Your task to perform on an android device: open chrome privacy settings Image 0: 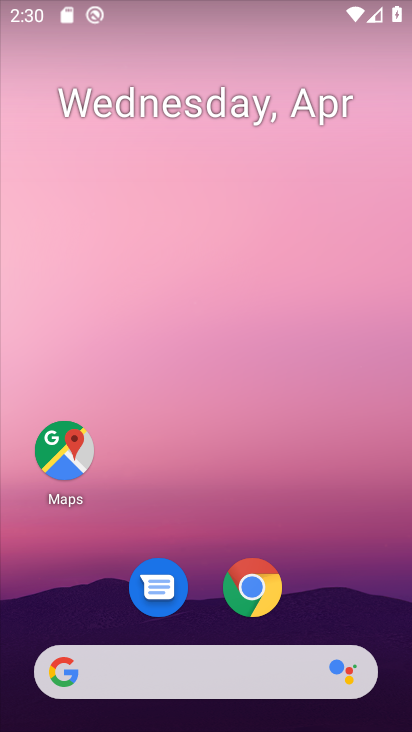
Step 0: click (357, 627)
Your task to perform on an android device: open chrome privacy settings Image 1: 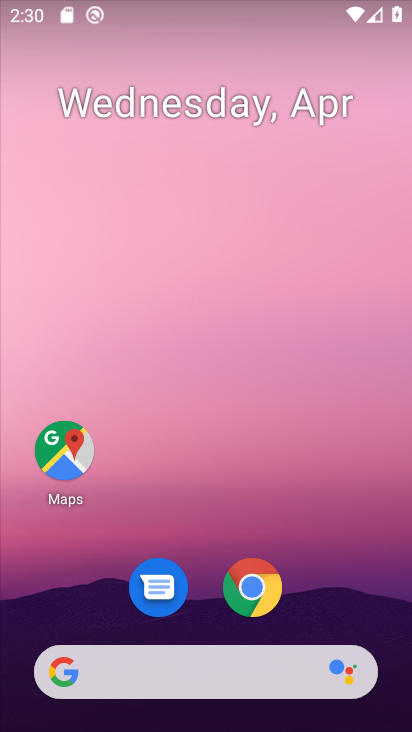
Step 1: click (265, 582)
Your task to perform on an android device: open chrome privacy settings Image 2: 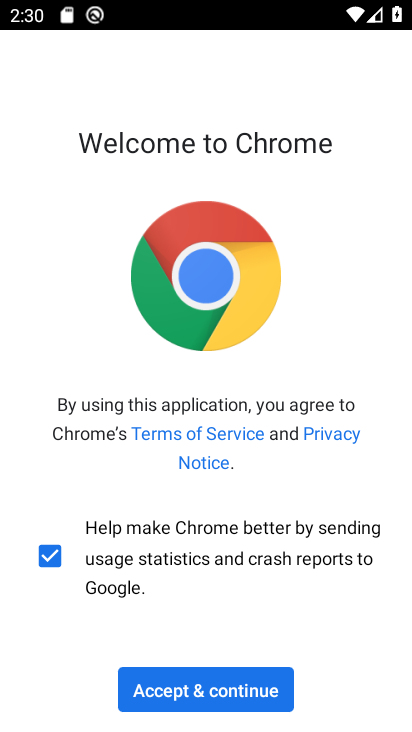
Step 2: click (219, 698)
Your task to perform on an android device: open chrome privacy settings Image 3: 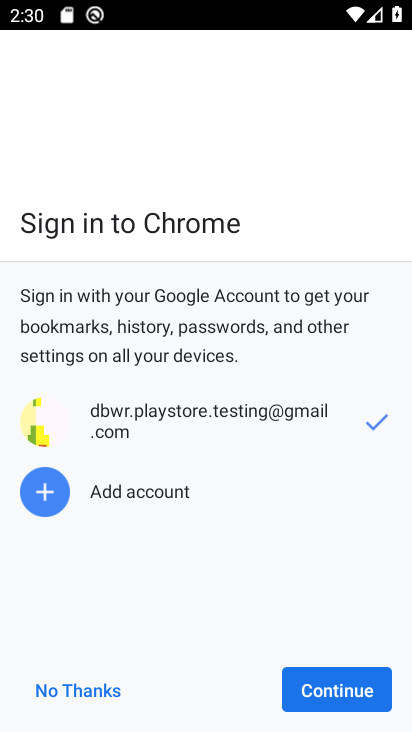
Step 3: click (332, 686)
Your task to perform on an android device: open chrome privacy settings Image 4: 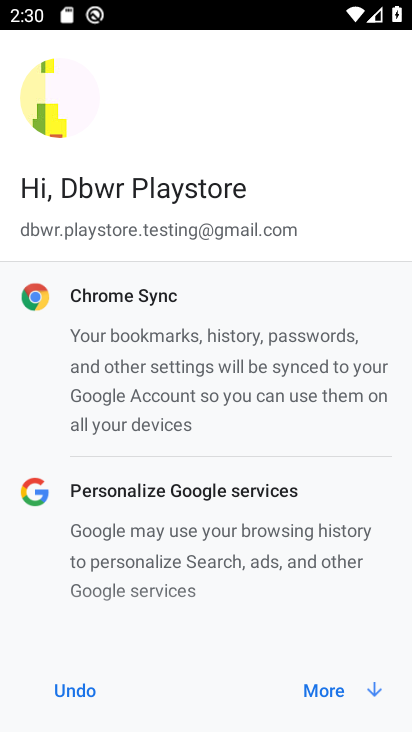
Step 4: click (332, 686)
Your task to perform on an android device: open chrome privacy settings Image 5: 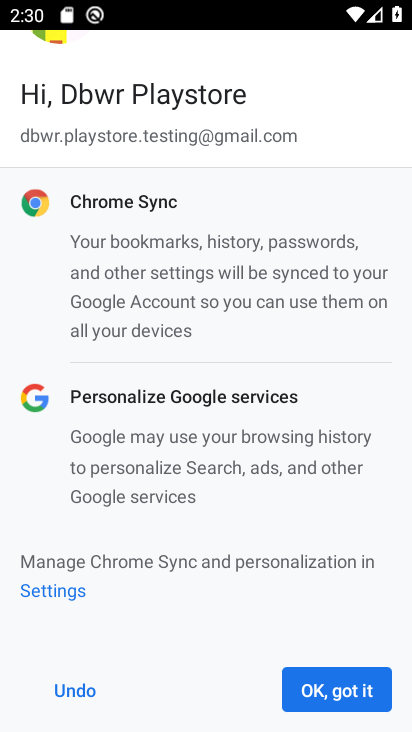
Step 5: click (332, 686)
Your task to perform on an android device: open chrome privacy settings Image 6: 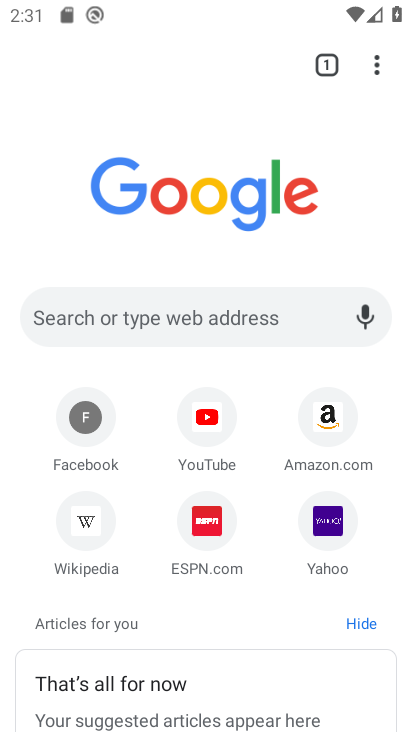
Step 6: click (372, 55)
Your task to perform on an android device: open chrome privacy settings Image 7: 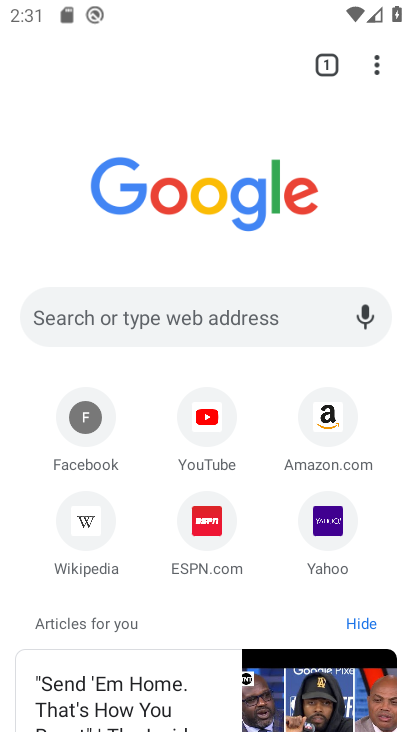
Step 7: click (372, 55)
Your task to perform on an android device: open chrome privacy settings Image 8: 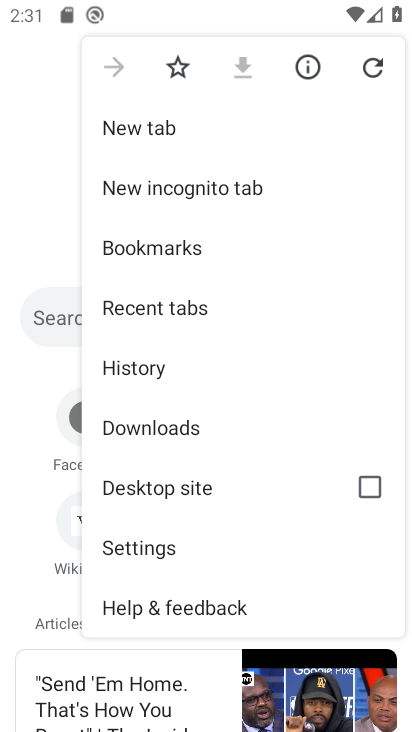
Step 8: click (223, 546)
Your task to perform on an android device: open chrome privacy settings Image 9: 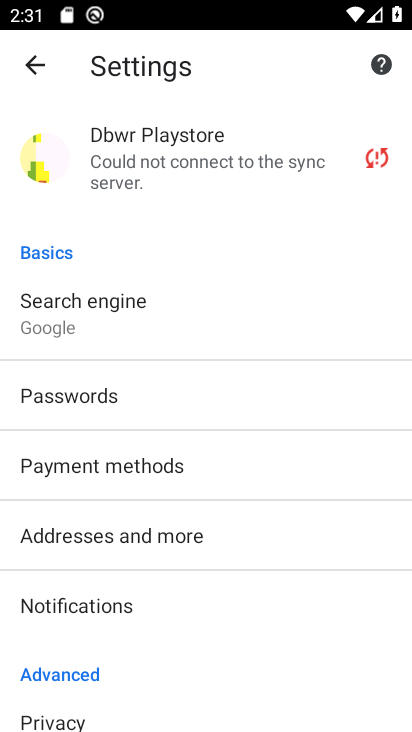
Step 9: click (80, 704)
Your task to perform on an android device: open chrome privacy settings Image 10: 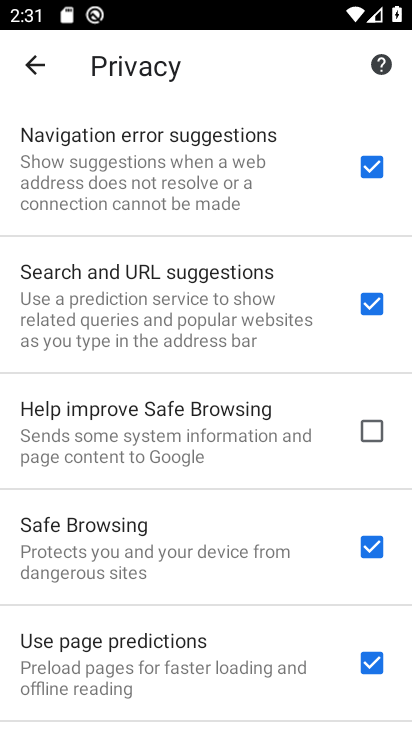
Step 10: task complete